Your task to perform on an android device: Clear the shopping cart on amazon. Image 0: 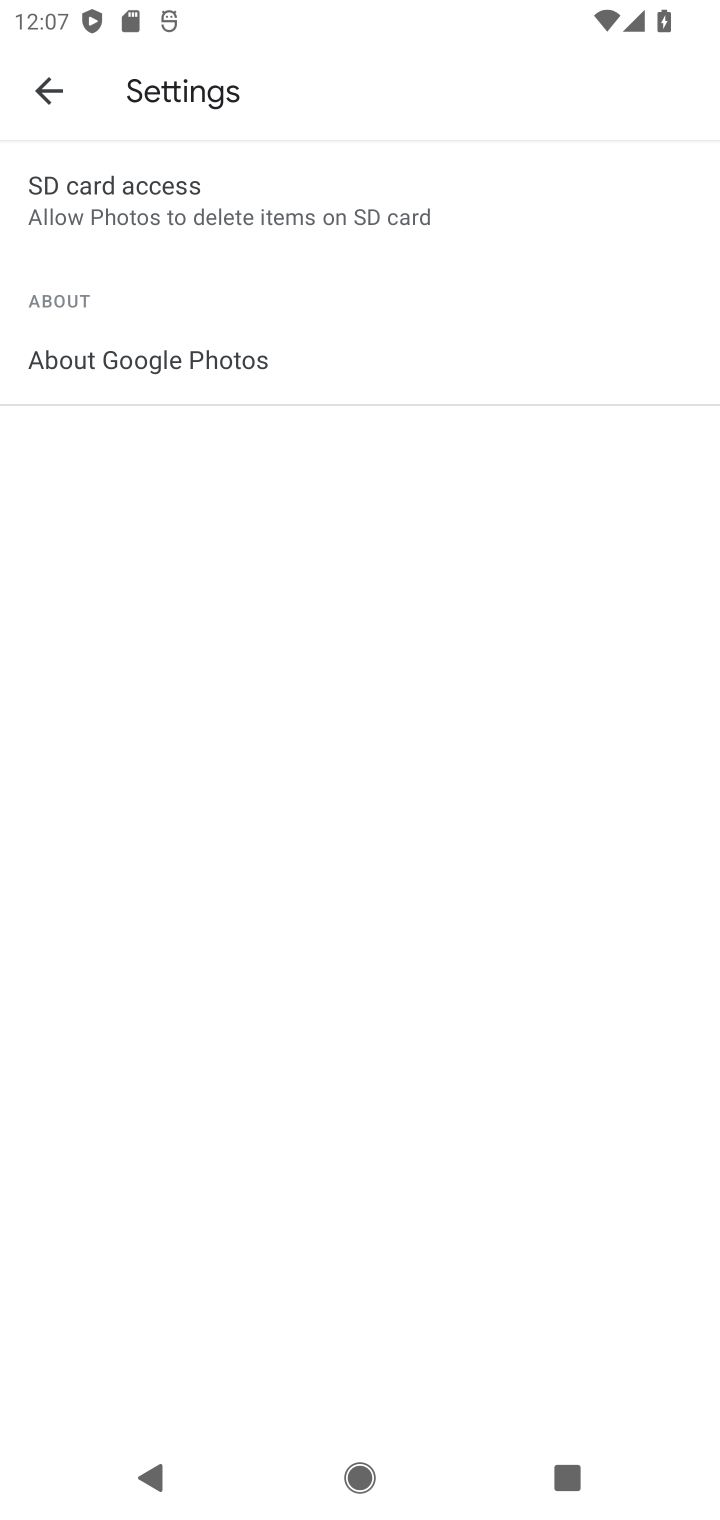
Step 0: press home button
Your task to perform on an android device: Clear the shopping cart on amazon. Image 1: 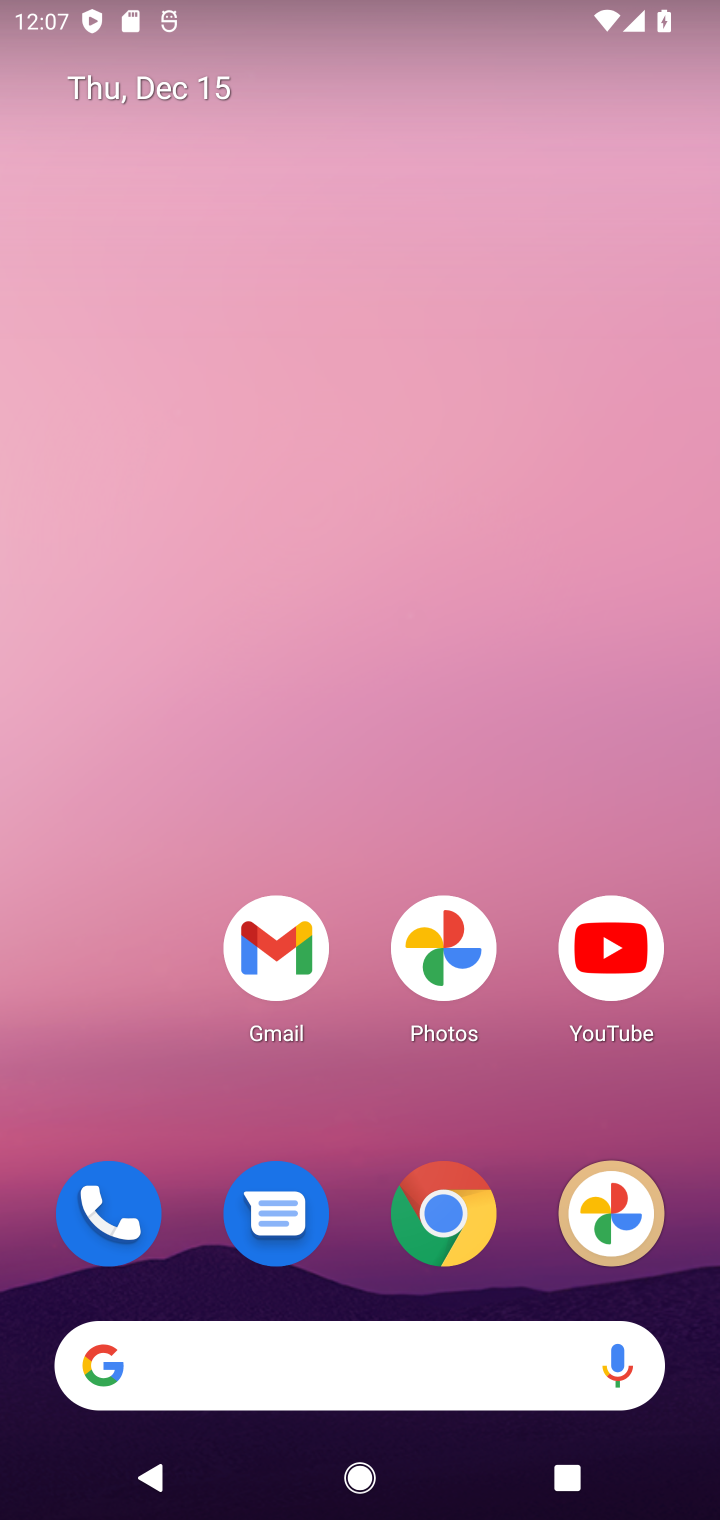
Step 1: click (410, 1368)
Your task to perform on an android device: Clear the shopping cart on amazon. Image 2: 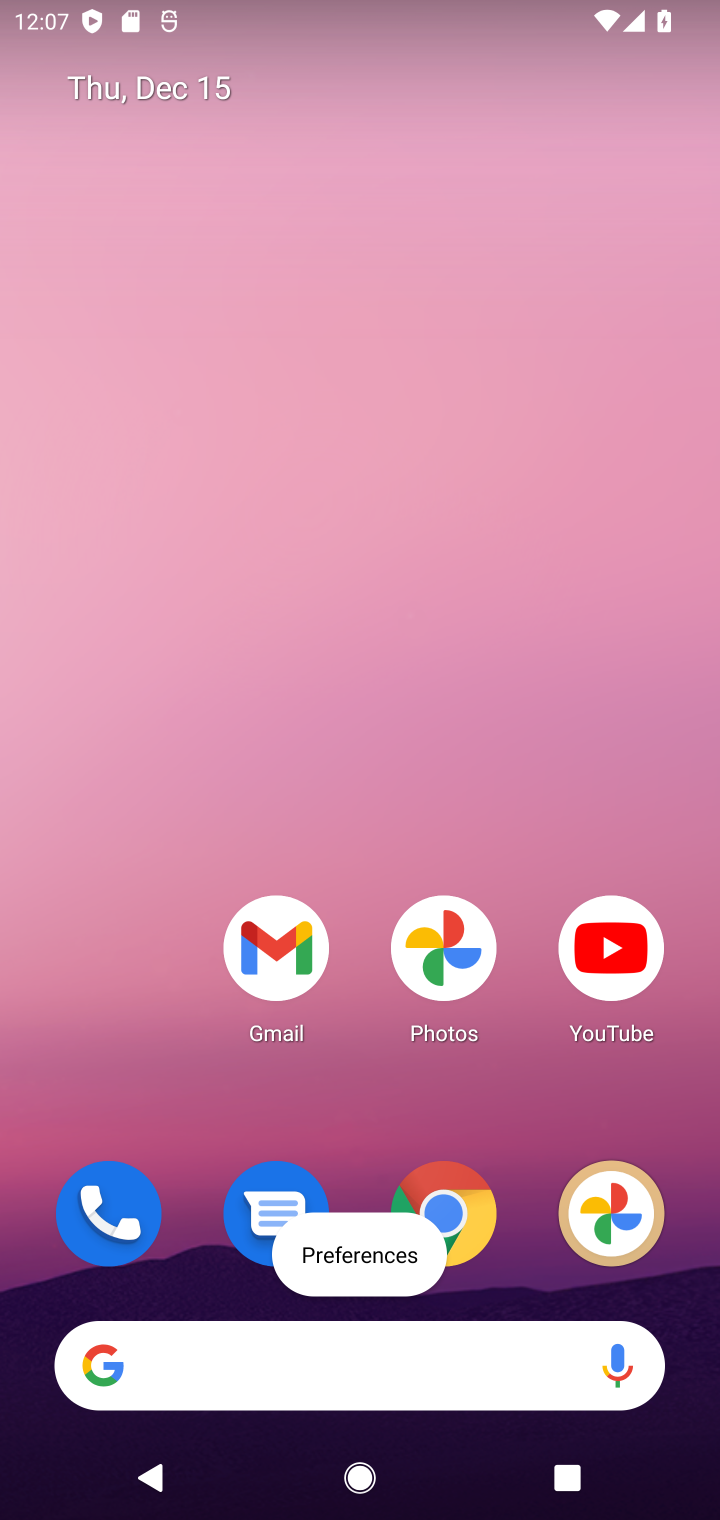
Step 2: click (304, 1334)
Your task to perform on an android device: Clear the shopping cart on amazon. Image 3: 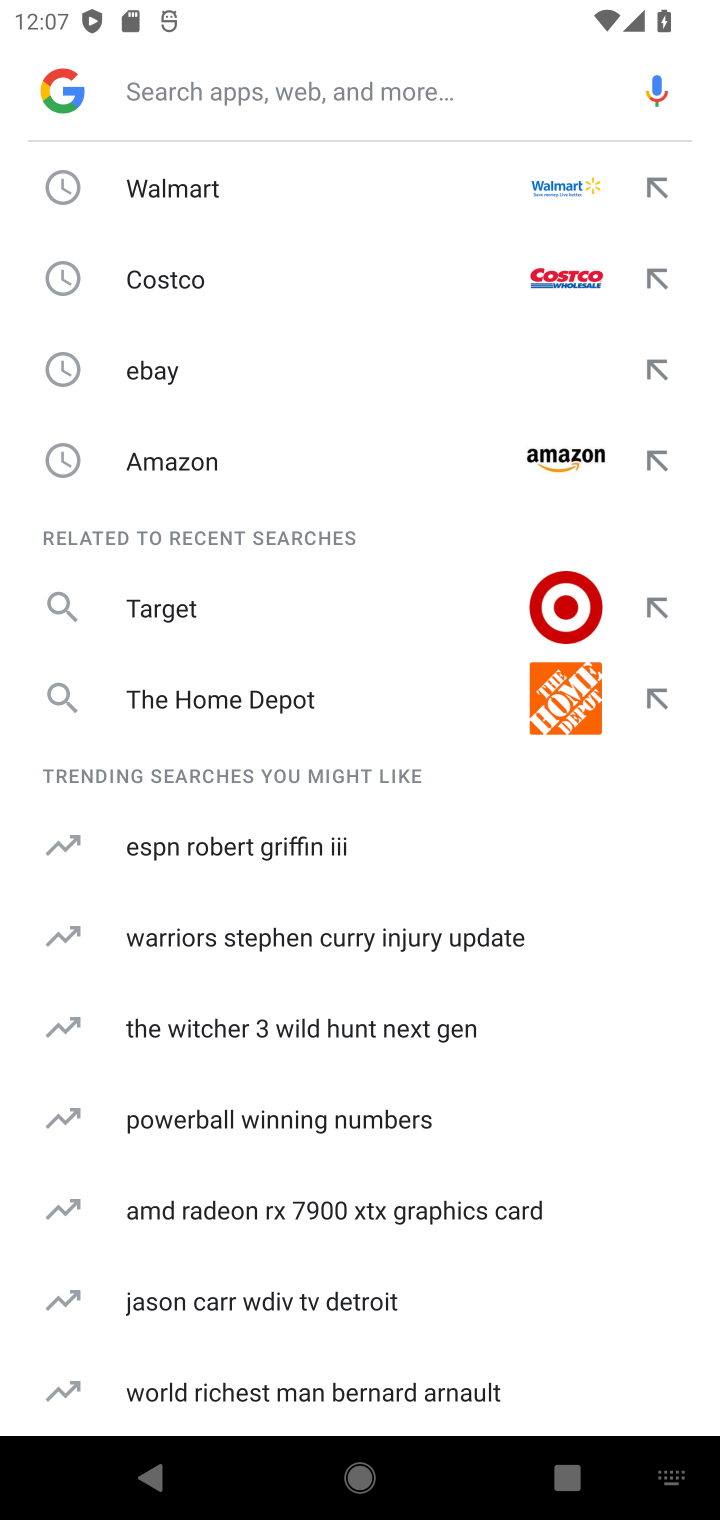
Step 3: click (181, 470)
Your task to perform on an android device: Clear the shopping cart on amazon. Image 4: 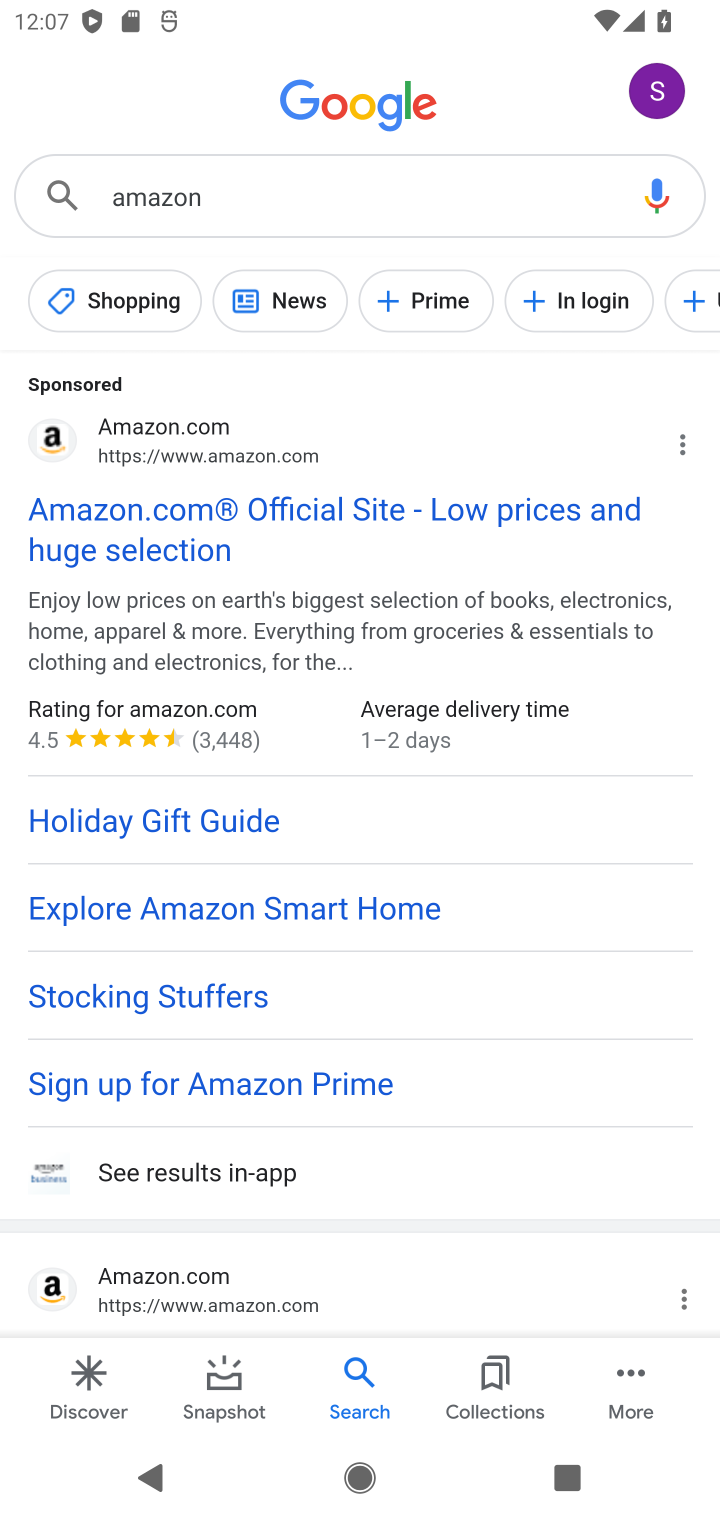
Step 4: click (122, 555)
Your task to perform on an android device: Clear the shopping cart on amazon. Image 5: 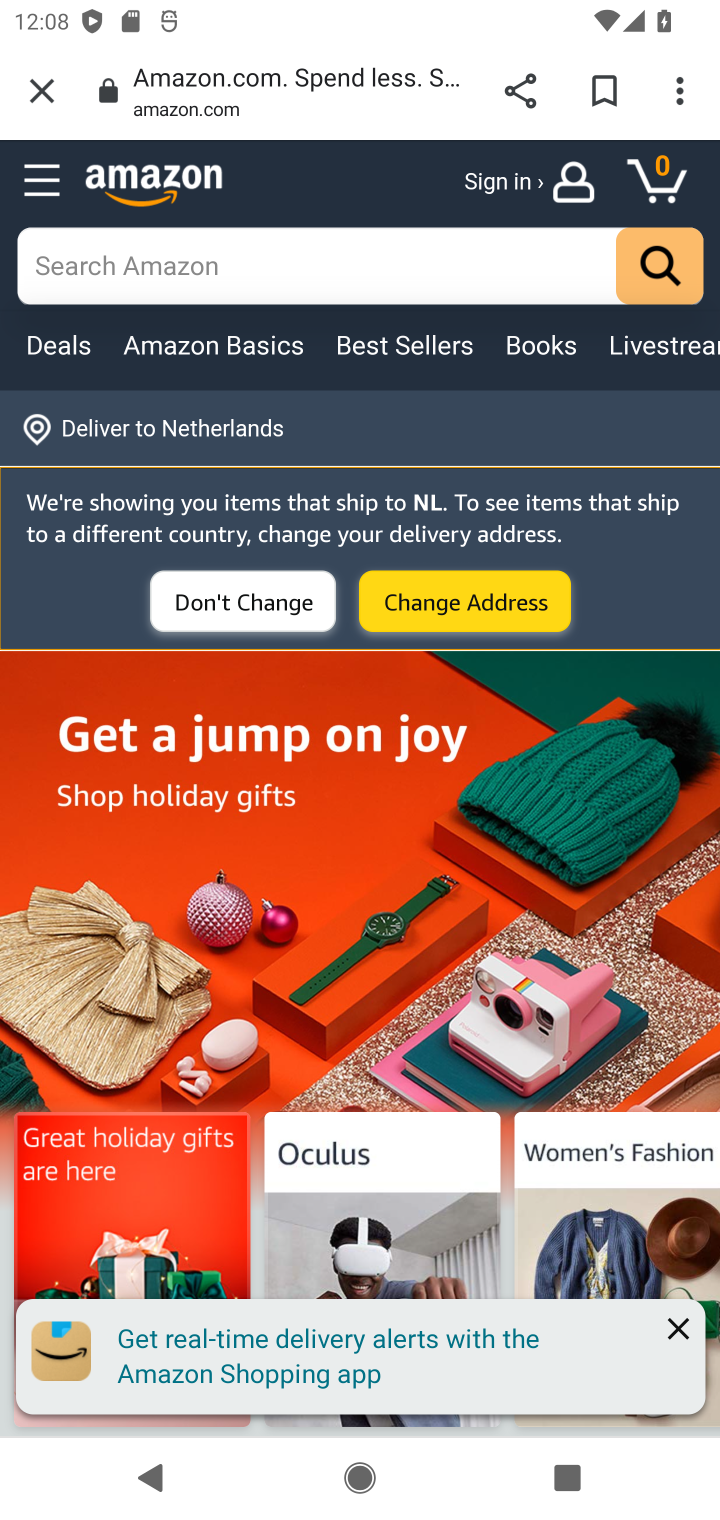
Step 5: click (206, 299)
Your task to perform on an android device: Clear the shopping cart on amazon. Image 6: 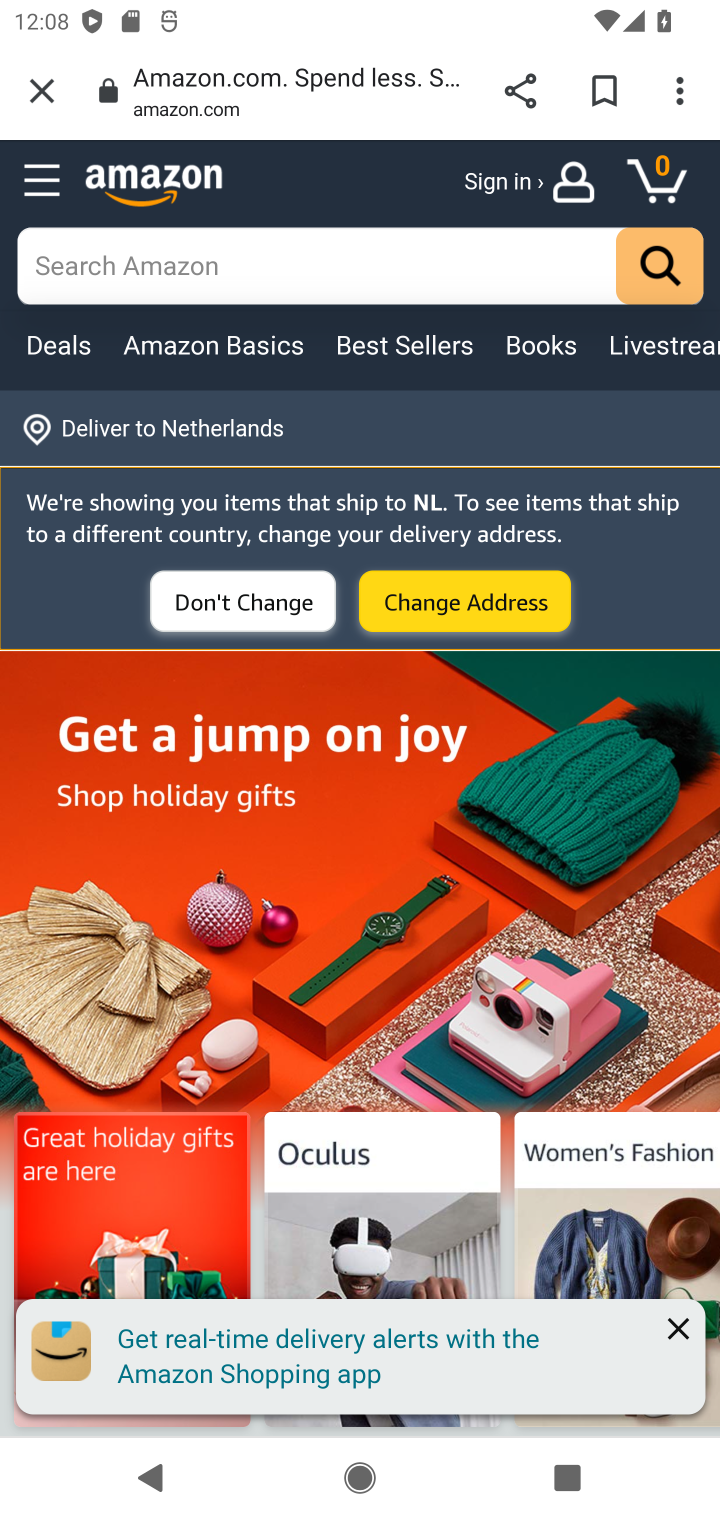
Step 6: task complete